Your task to perform on an android device: set an alarm Image 0: 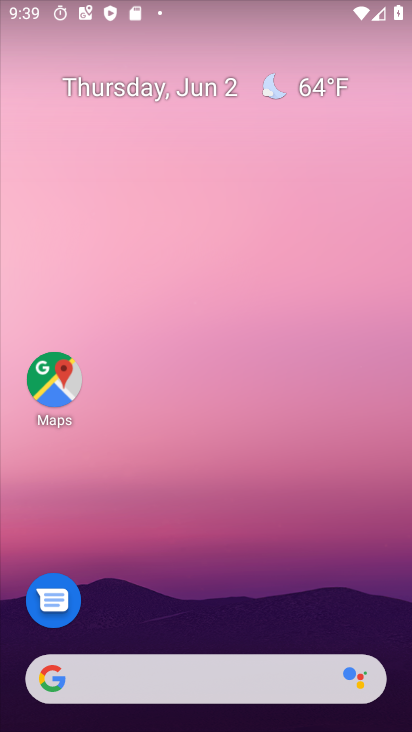
Step 0: drag from (243, 584) to (250, 58)
Your task to perform on an android device: set an alarm Image 1: 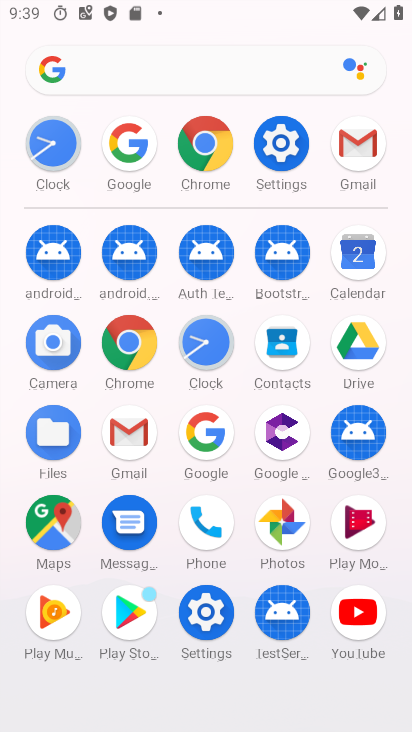
Step 1: click (212, 341)
Your task to perform on an android device: set an alarm Image 2: 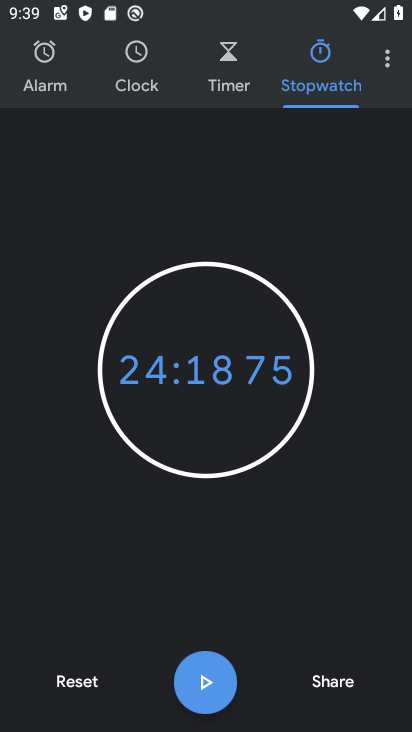
Step 2: click (28, 54)
Your task to perform on an android device: set an alarm Image 3: 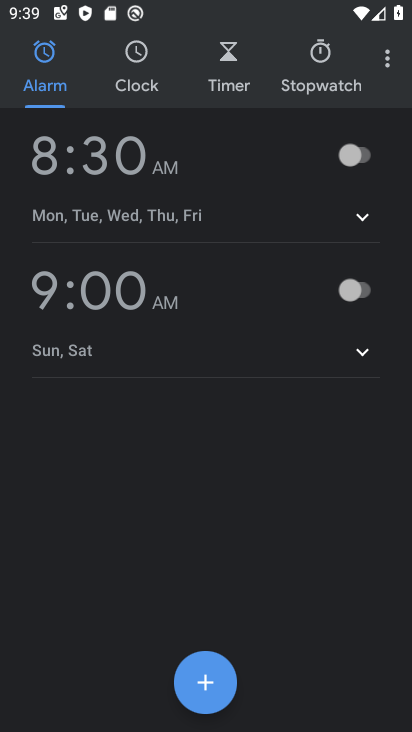
Step 3: click (348, 156)
Your task to perform on an android device: set an alarm Image 4: 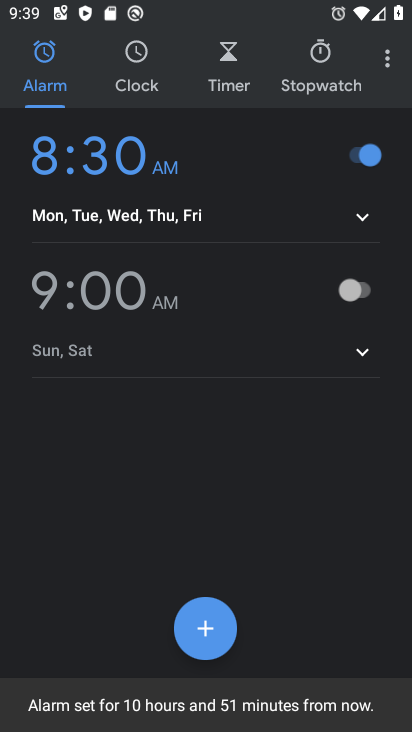
Step 4: task complete